Your task to perform on an android device: toggle location history Image 0: 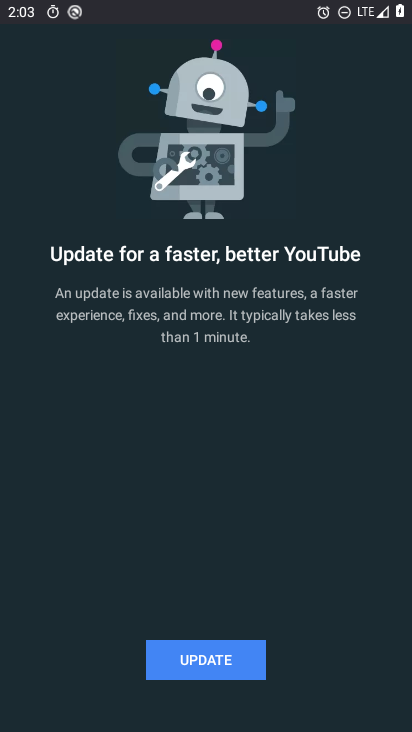
Step 0: drag from (211, 660) to (209, 475)
Your task to perform on an android device: toggle location history Image 1: 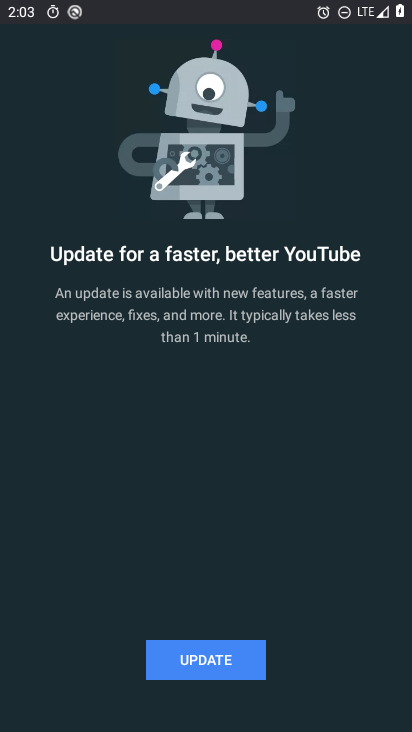
Step 1: press home button
Your task to perform on an android device: toggle location history Image 2: 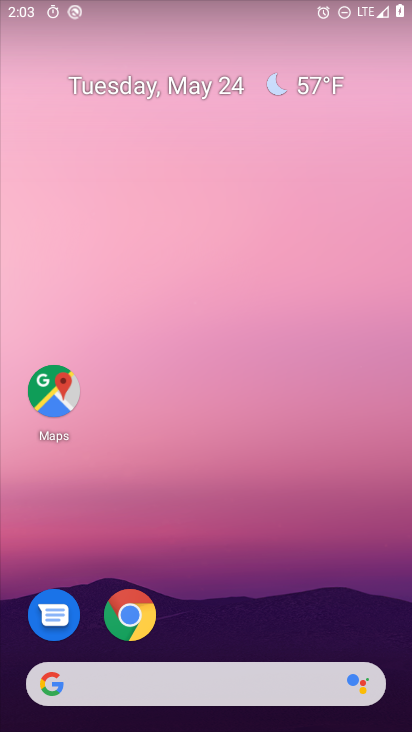
Step 2: drag from (223, 670) to (232, 248)
Your task to perform on an android device: toggle location history Image 3: 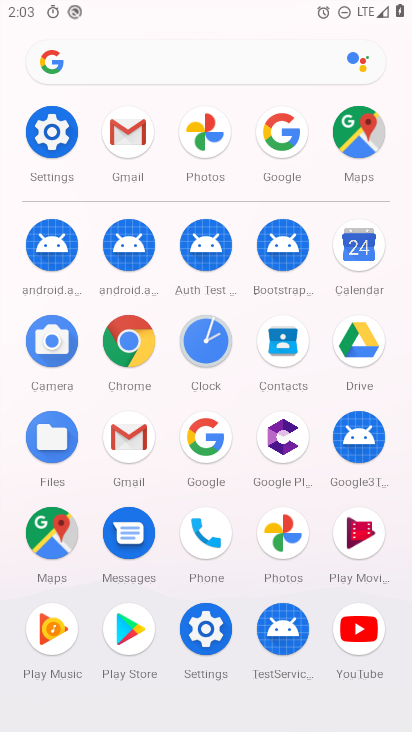
Step 3: click (200, 639)
Your task to perform on an android device: toggle location history Image 4: 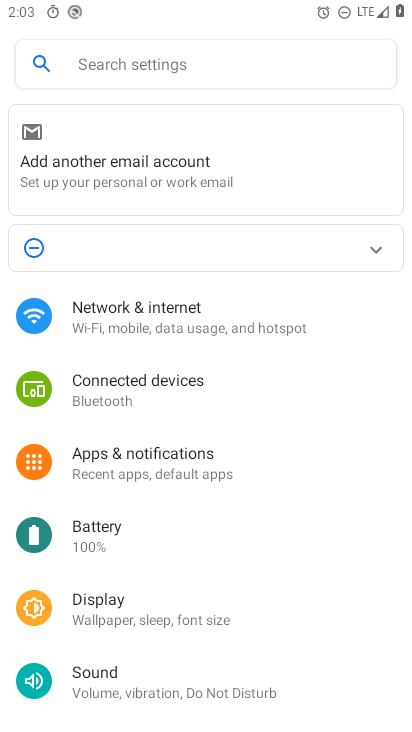
Step 4: drag from (143, 698) to (194, 191)
Your task to perform on an android device: toggle location history Image 5: 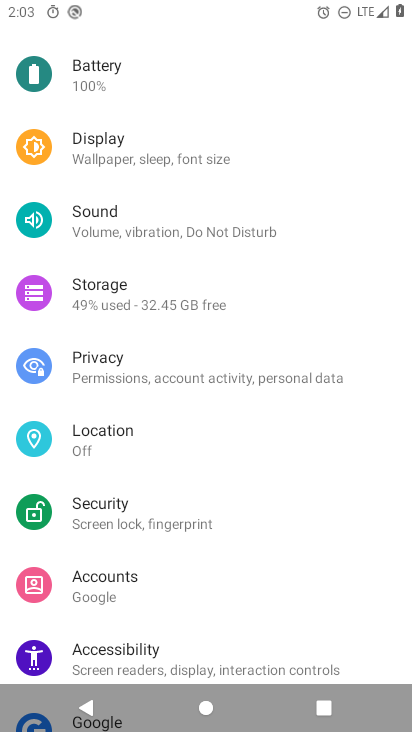
Step 5: click (107, 449)
Your task to perform on an android device: toggle location history Image 6: 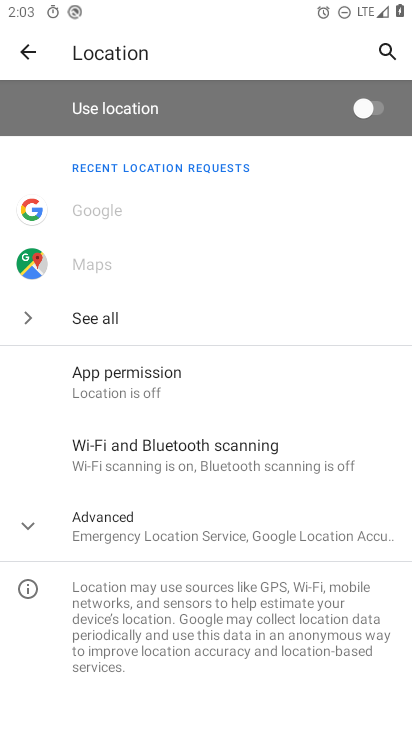
Step 6: click (128, 527)
Your task to perform on an android device: toggle location history Image 7: 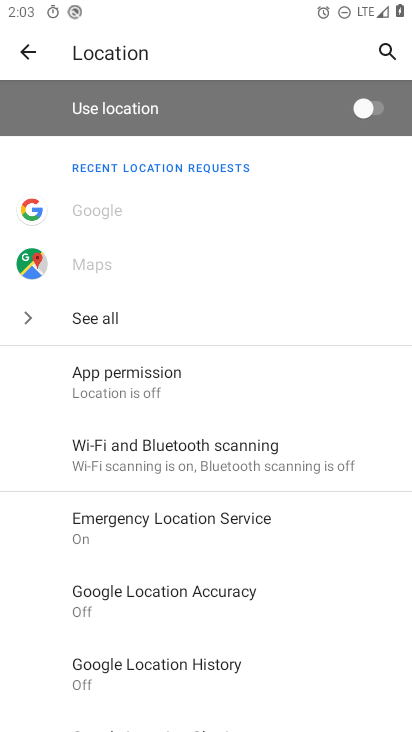
Step 7: click (121, 673)
Your task to perform on an android device: toggle location history Image 8: 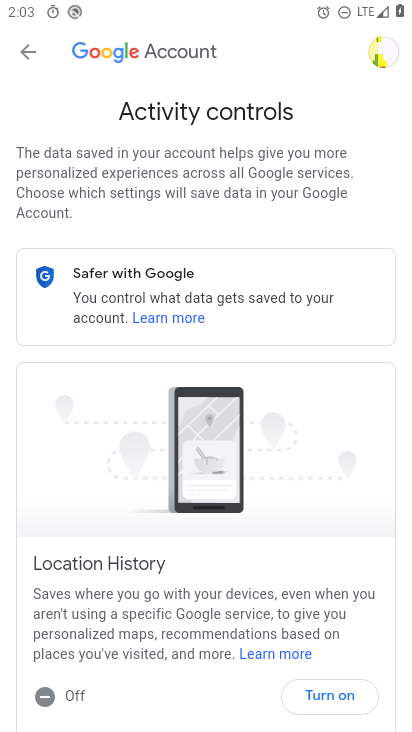
Step 8: click (328, 696)
Your task to perform on an android device: toggle location history Image 9: 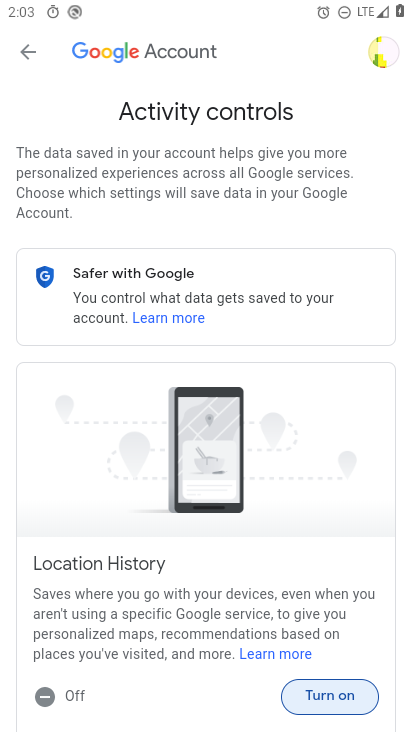
Step 9: click (328, 696)
Your task to perform on an android device: toggle location history Image 10: 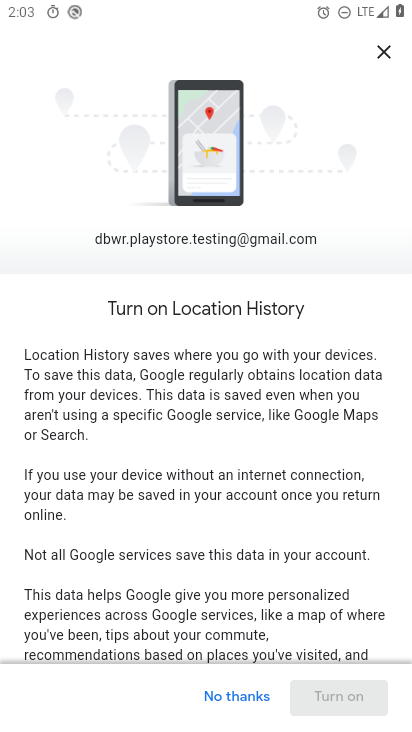
Step 10: drag from (327, 564) to (327, 196)
Your task to perform on an android device: toggle location history Image 11: 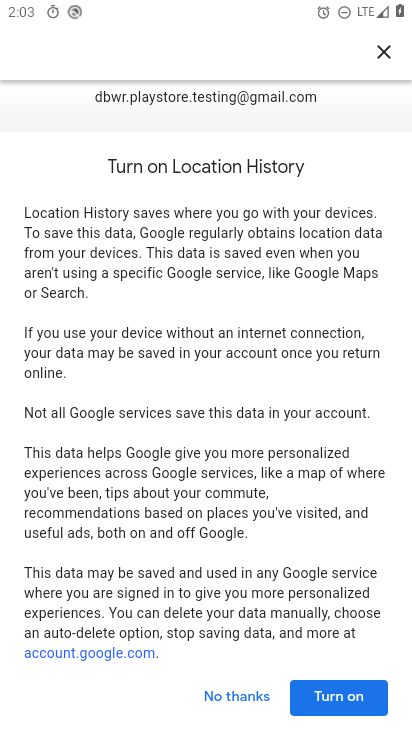
Step 11: click (311, 707)
Your task to perform on an android device: toggle location history Image 12: 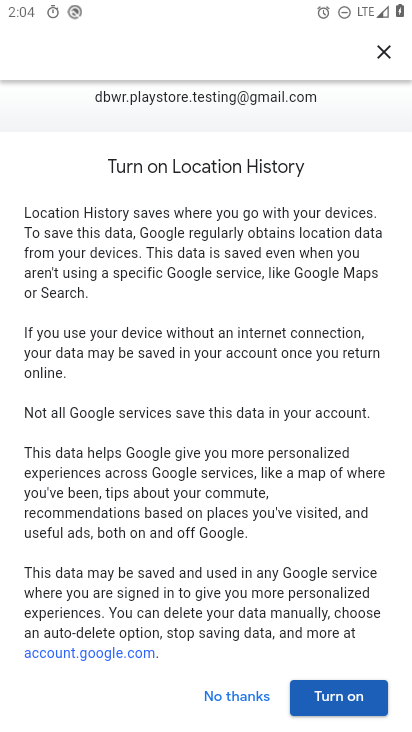
Step 12: click (329, 717)
Your task to perform on an android device: toggle location history Image 13: 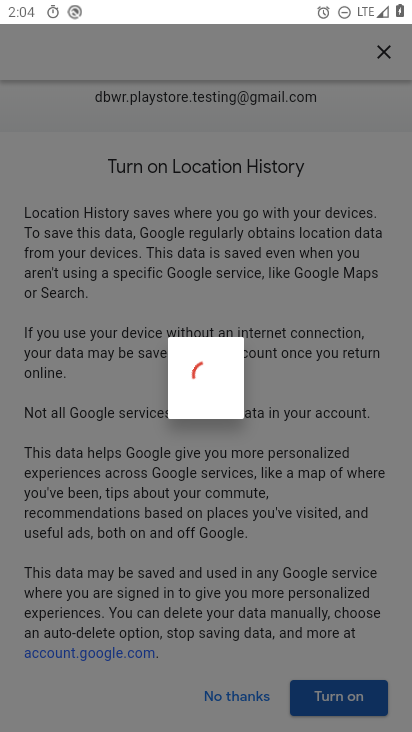
Step 13: click (327, 700)
Your task to perform on an android device: toggle location history Image 14: 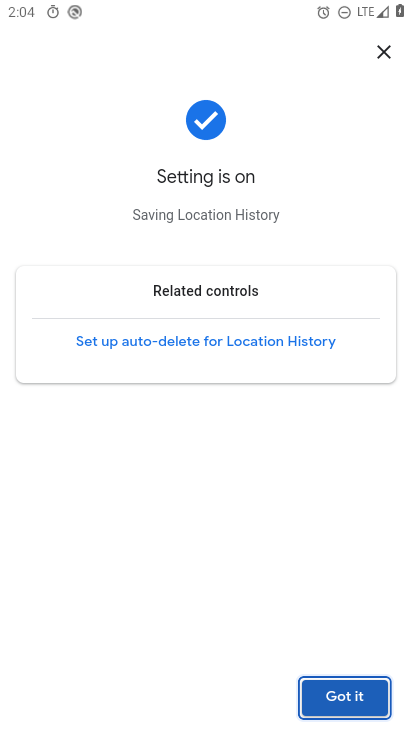
Step 14: click (317, 692)
Your task to perform on an android device: toggle location history Image 15: 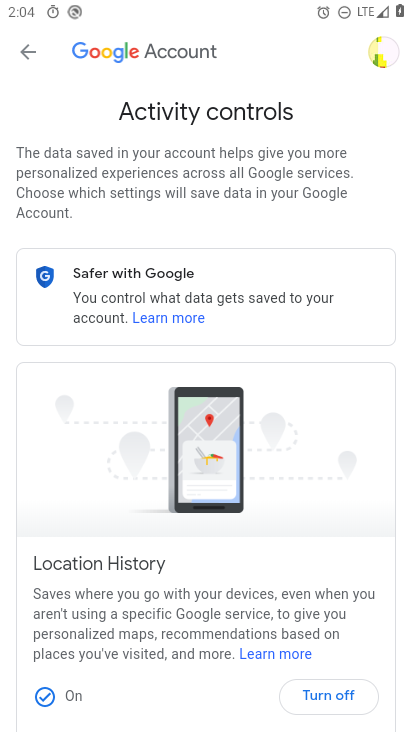
Step 15: click (317, 692)
Your task to perform on an android device: toggle location history Image 16: 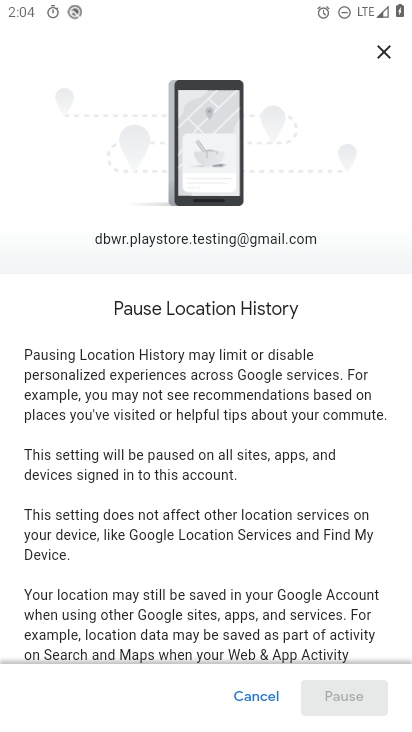
Step 16: task complete